Your task to perform on an android device: Show me popular videos on Youtube Image 0: 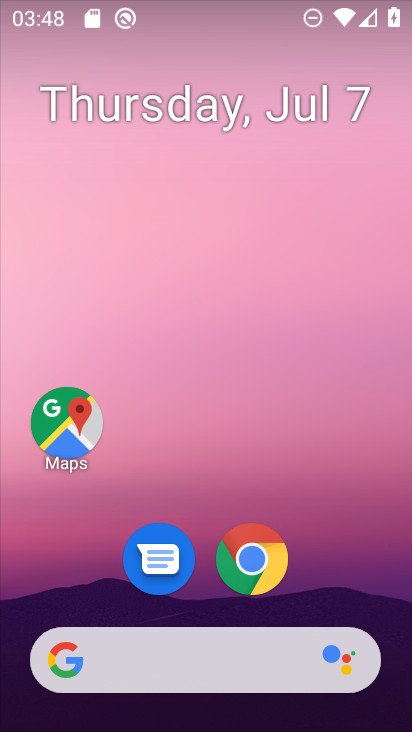
Step 0: drag from (362, 550) to (342, 137)
Your task to perform on an android device: Show me popular videos on Youtube Image 1: 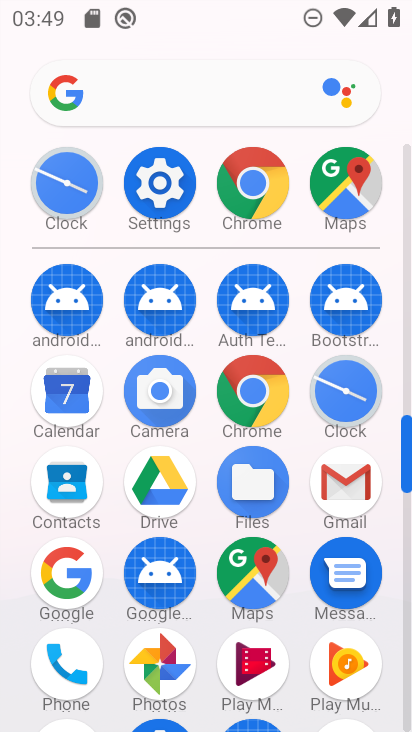
Step 1: drag from (386, 531) to (394, 228)
Your task to perform on an android device: Show me popular videos on Youtube Image 2: 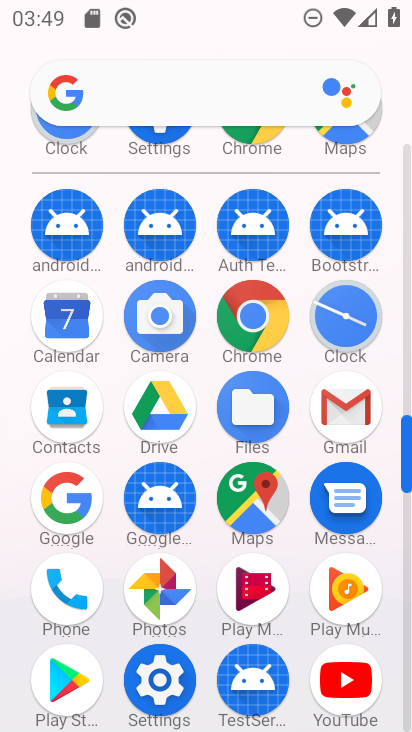
Step 2: click (347, 673)
Your task to perform on an android device: Show me popular videos on Youtube Image 3: 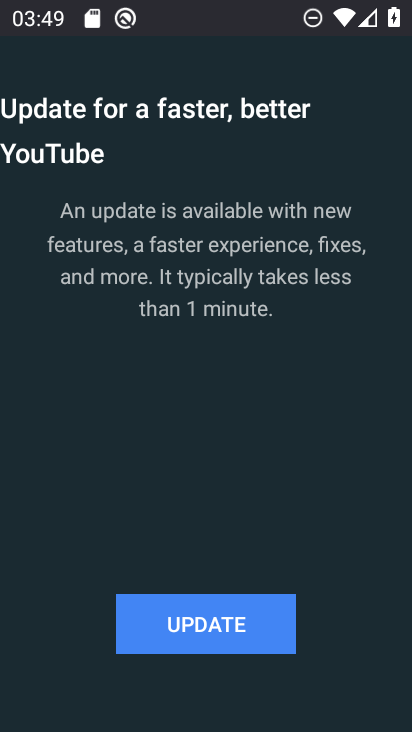
Step 3: click (262, 620)
Your task to perform on an android device: Show me popular videos on Youtube Image 4: 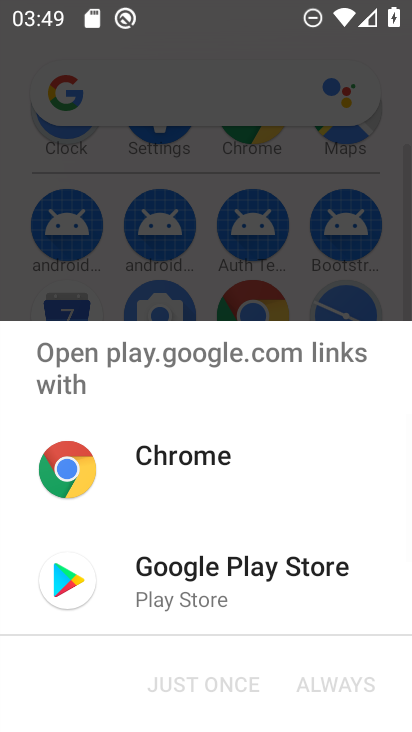
Step 4: click (238, 601)
Your task to perform on an android device: Show me popular videos on Youtube Image 5: 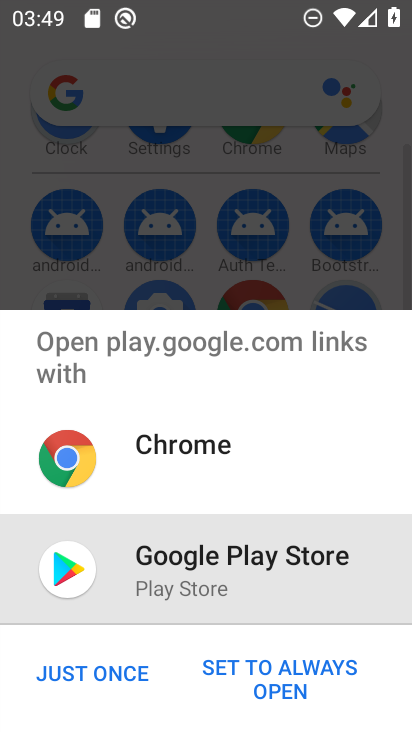
Step 5: click (120, 667)
Your task to perform on an android device: Show me popular videos on Youtube Image 6: 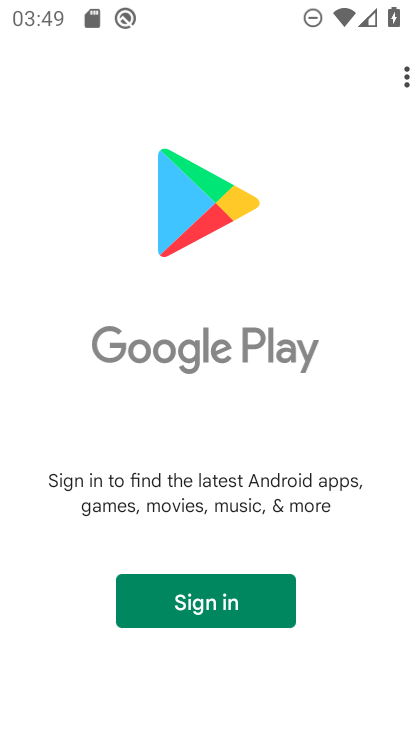
Step 6: task complete